Your task to perform on an android device: Search for sushi restaurants on Maps Image 0: 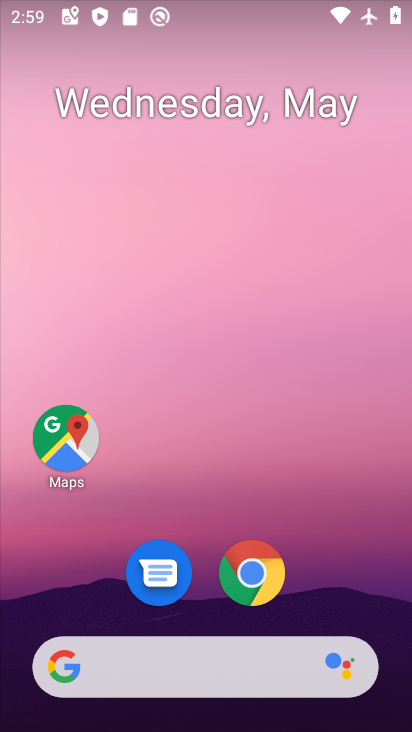
Step 0: click (69, 438)
Your task to perform on an android device: Search for sushi restaurants on Maps Image 1: 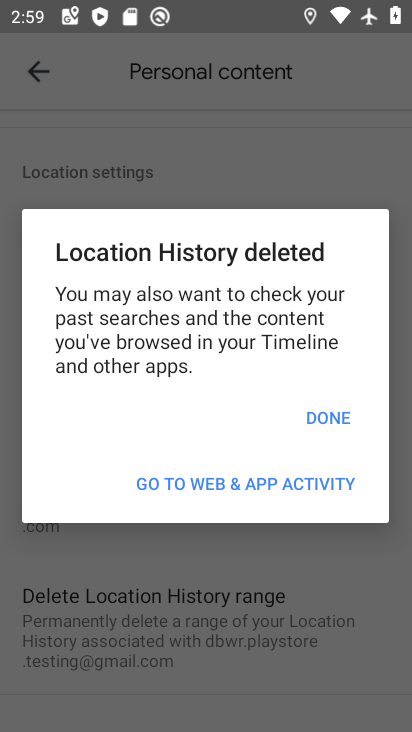
Step 1: press back button
Your task to perform on an android device: Search for sushi restaurants on Maps Image 2: 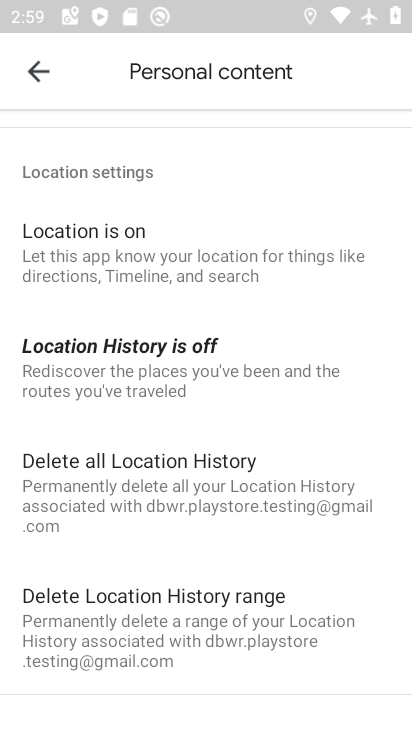
Step 2: press back button
Your task to perform on an android device: Search for sushi restaurants on Maps Image 3: 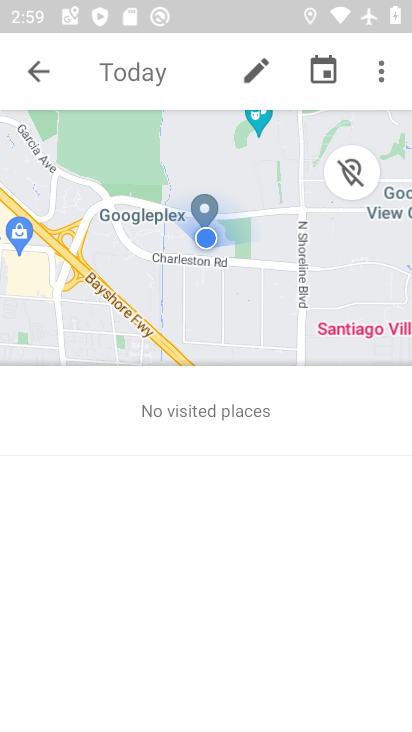
Step 3: press back button
Your task to perform on an android device: Search for sushi restaurants on Maps Image 4: 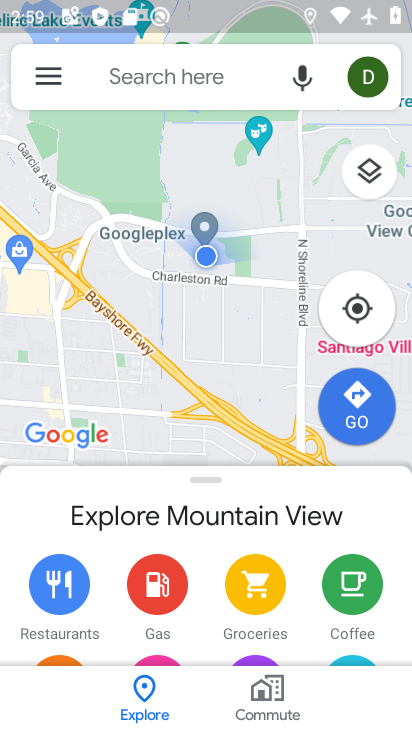
Step 4: click (115, 86)
Your task to perform on an android device: Search for sushi restaurants on Maps Image 5: 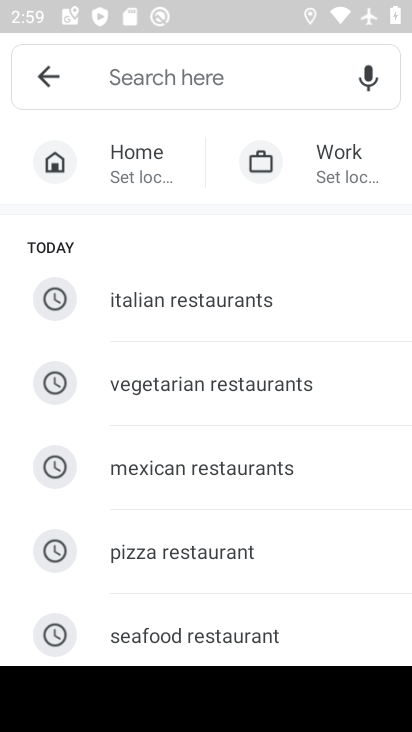
Step 5: type "sushi restaurants"
Your task to perform on an android device: Search for sushi restaurants on Maps Image 6: 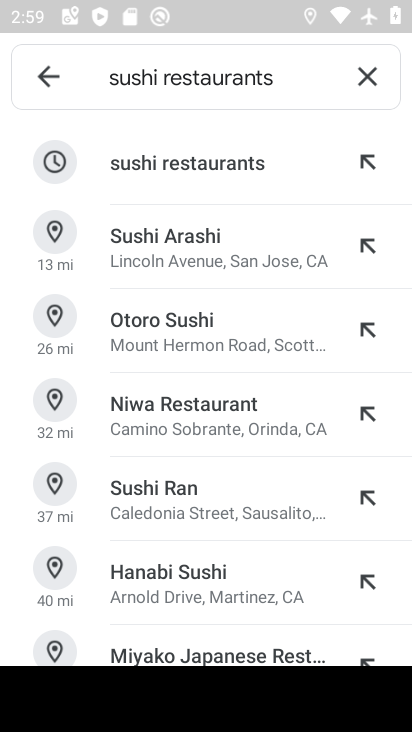
Step 6: click (158, 148)
Your task to perform on an android device: Search for sushi restaurants on Maps Image 7: 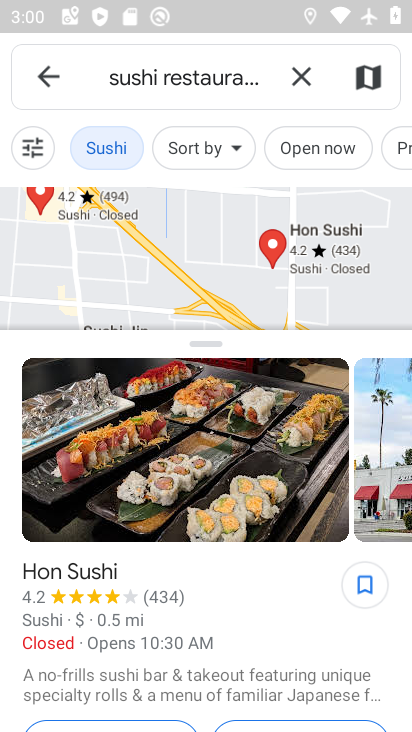
Step 7: task complete